Your task to perform on an android device: Open Android settings Image 0: 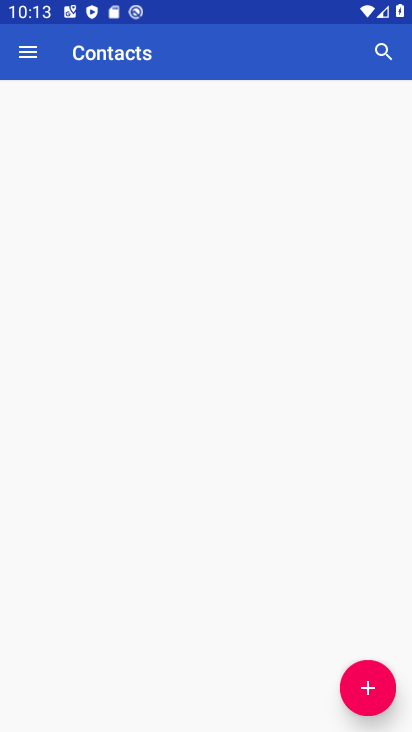
Step 0: drag from (278, 699) to (223, 346)
Your task to perform on an android device: Open Android settings Image 1: 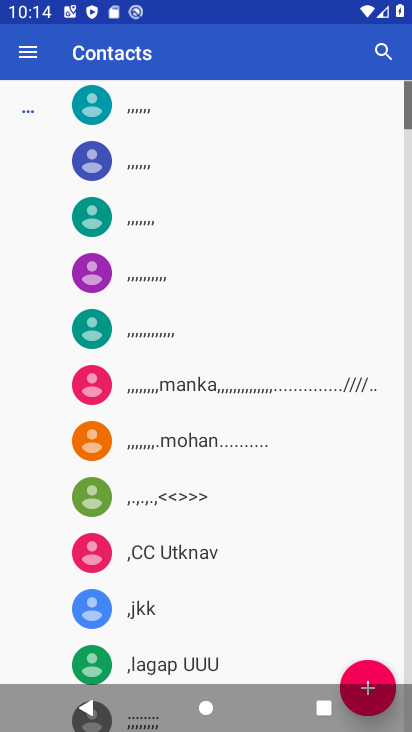
Step 1: press home button
Your task to perform on an android device: Open Android settings Image 2: 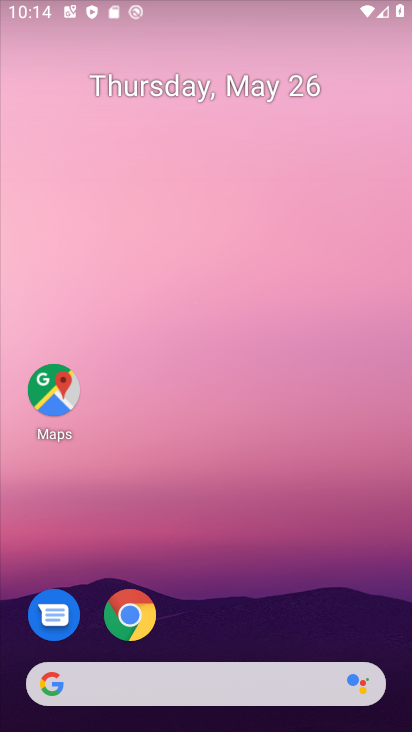
Step 2: drag from (284, 703) to (280, 289)
Your task to perform on an android device: Open Android settings Image 3: 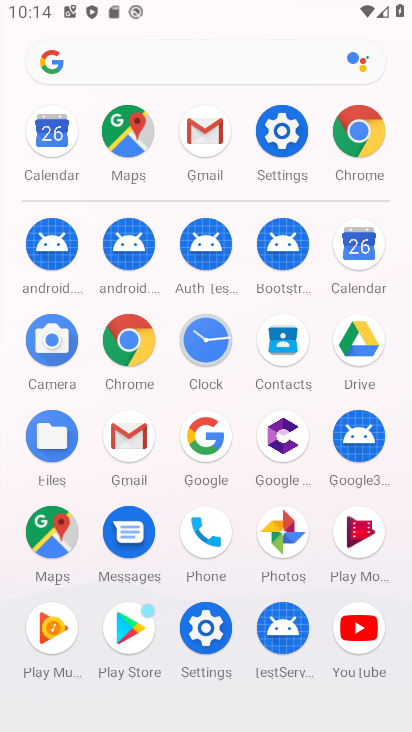
Step 3: click (285, 128)
Your task to perform on an android device: Open Android settings Image 4: 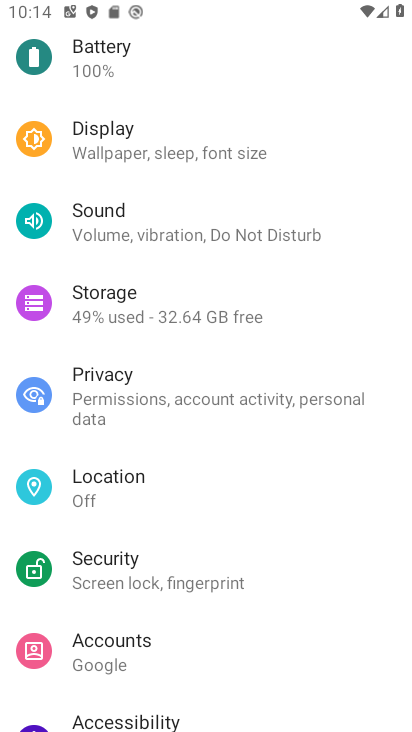
Step 4: drag from (158, 654) to (181, 138)
Your task to perform on an android device: Open Android settings Image 5: 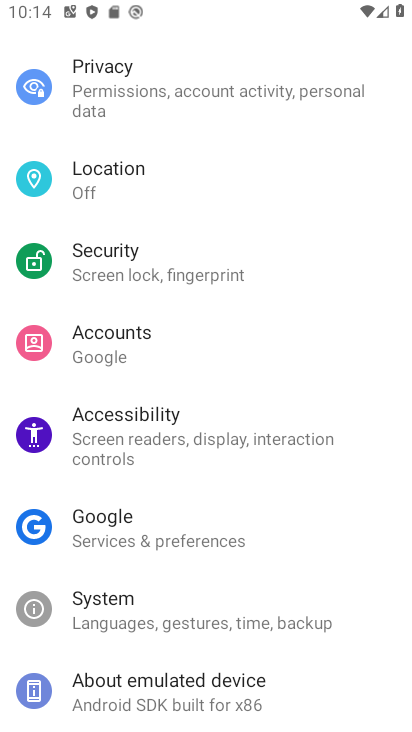
Step 5: click (179, 680)
Your task to perform on an android device: Open Android settings Image 6: 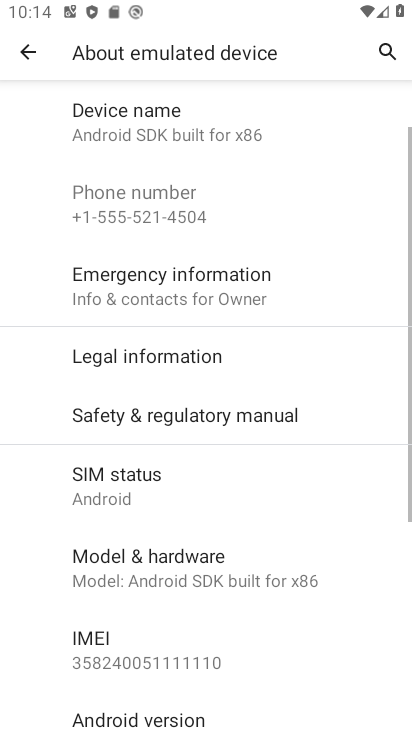
Step 6: click (181, 706)
Your task to perform on an android device: Open Android settings Image 7: 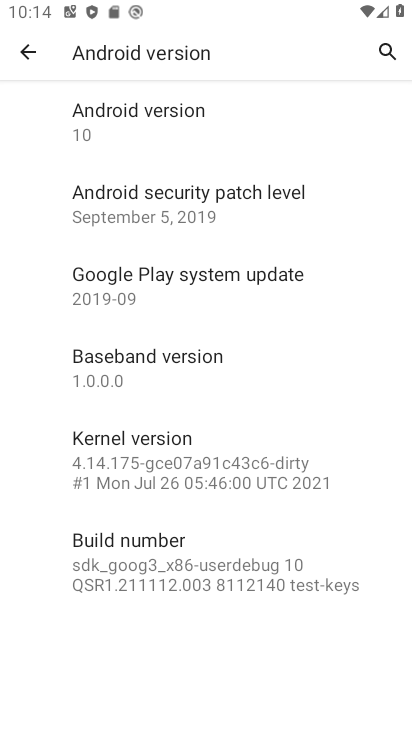
Step 7: task complete